Your task to perform on an android device: Open Maps and search for coffee Image 0: 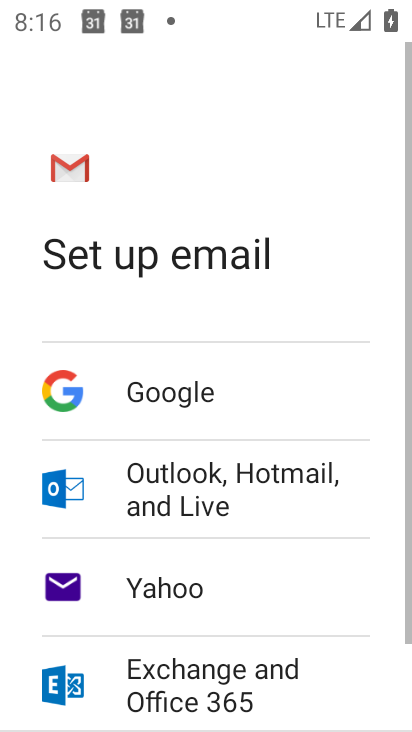
Step 0: press back button
Your task to perform on an android device: Open Maps and search for coffee Image 1: 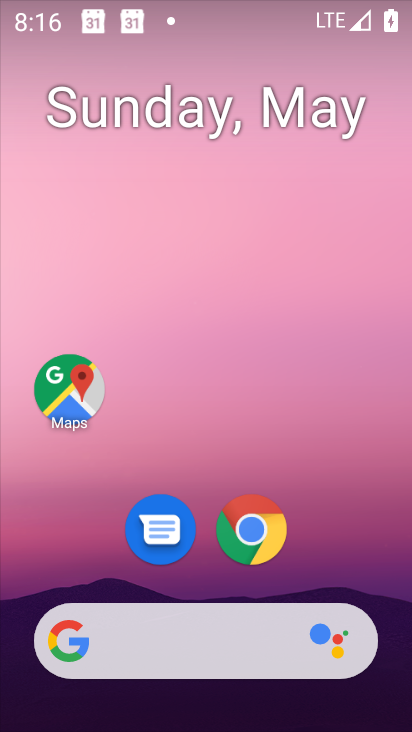
Step 1: click (65, 378)
Your task to perform on an android device: Open Maps and search for coffee Image 2: 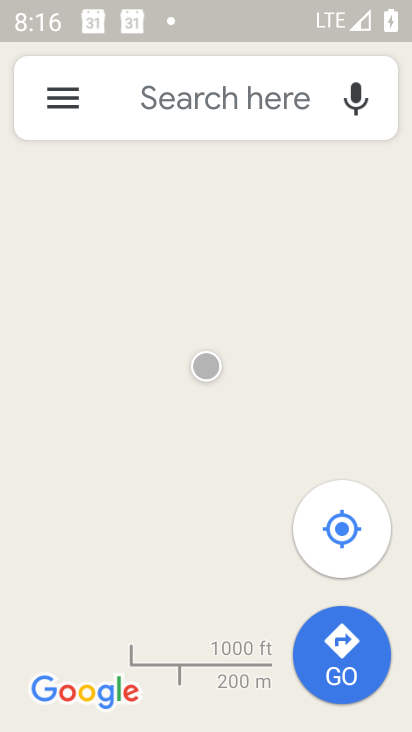
Step 2: click (225, 88)
Your task to perform on an android device: Open Maps and search for coffee Image 3: 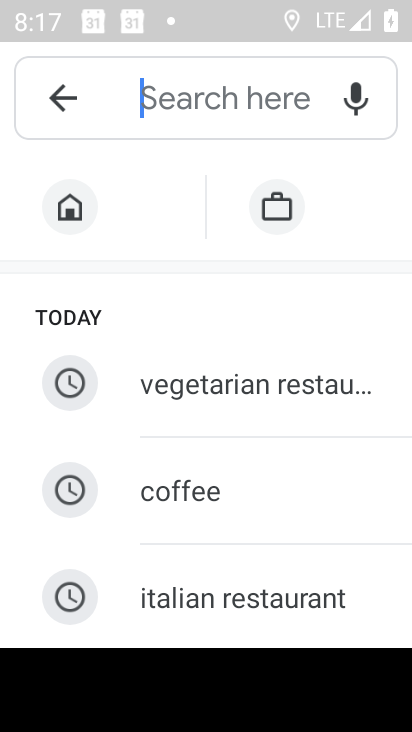
Step 3: click (198, 485)
Your task to perform on an android device: Open Maps and search for coffee Image 4: 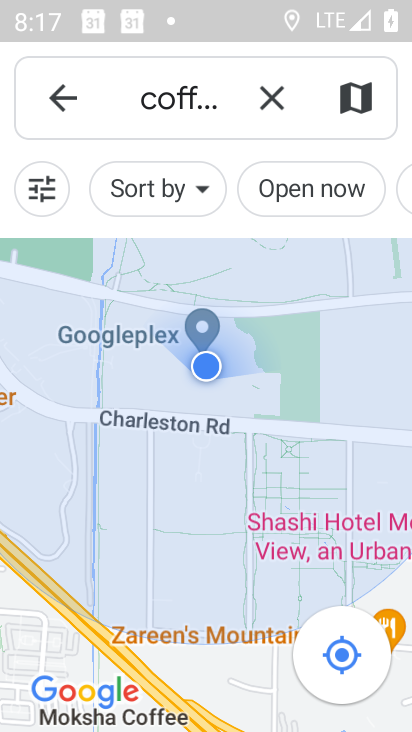
Step 4: task complete